Your task to perform on an android device: Go to settings Image 0: 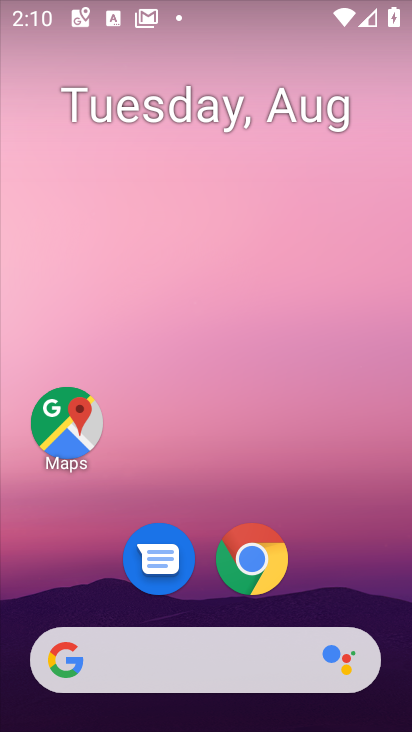
Step 0: drag from (216, 476) to (220, 161)
Your task to perform on an android device: Go to settings Image 1: 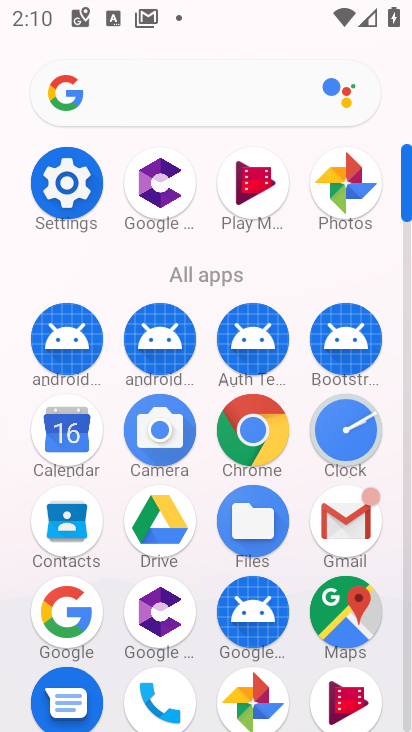
Step 1: click (83, 174)
Your task to perform on an android device: Go to settings Image 2: 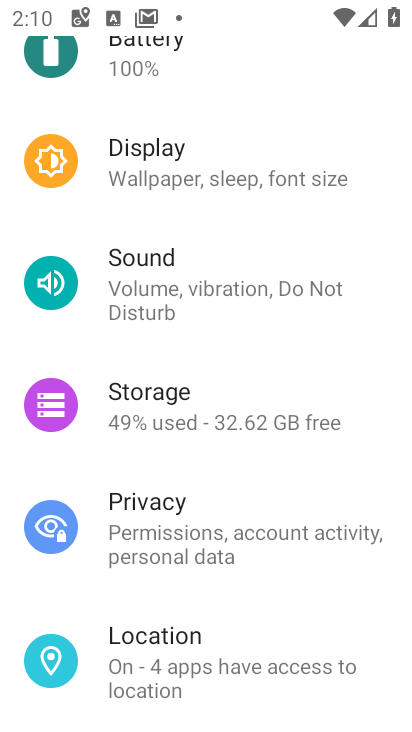
Step 2: task complete